Your task to perform on an android device: allow cookies in the chrome app Image 0: 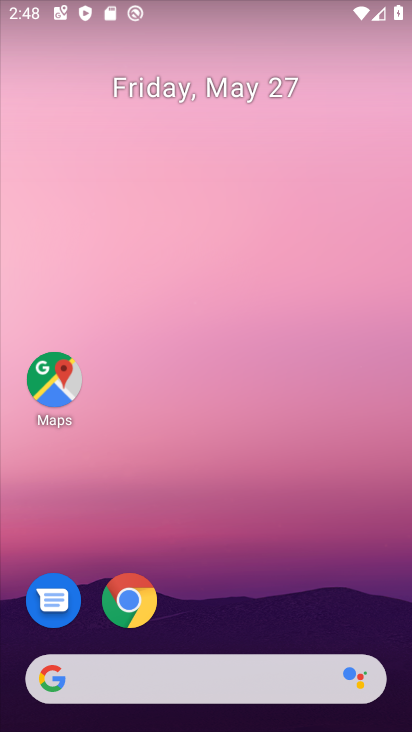
Step 0: click (158, 595)
Your task to perform on an android device: allow cookies in the chrome app Image 1: 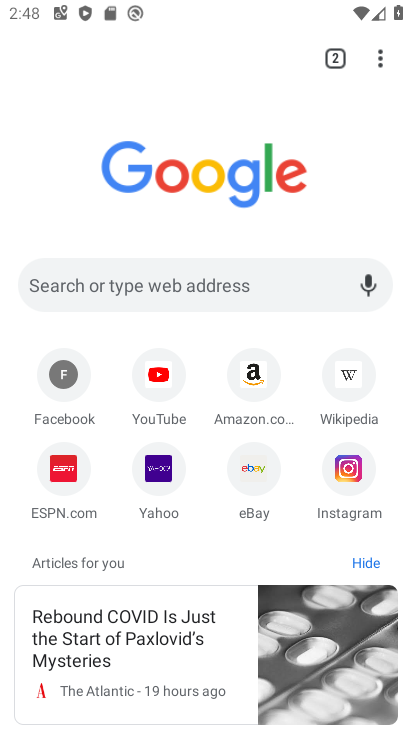
Step 1: click (377, 62)
Your task to perform on an android device: allow cookies in the chrome app Image 2: 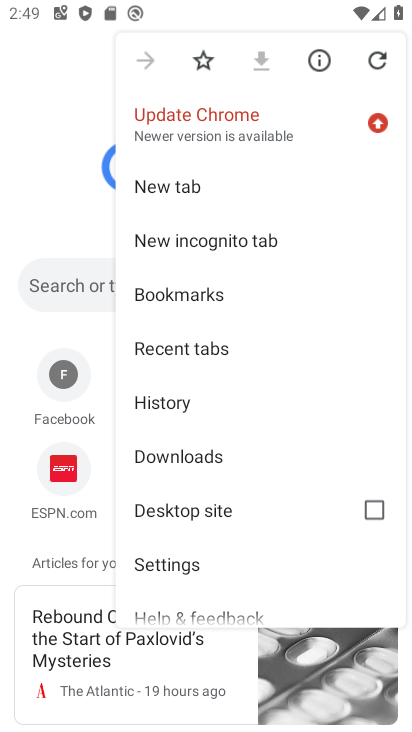
Step 2: click (219, 549)
Your task to perform on an android device: allow cookies in the chrome app Image 3: 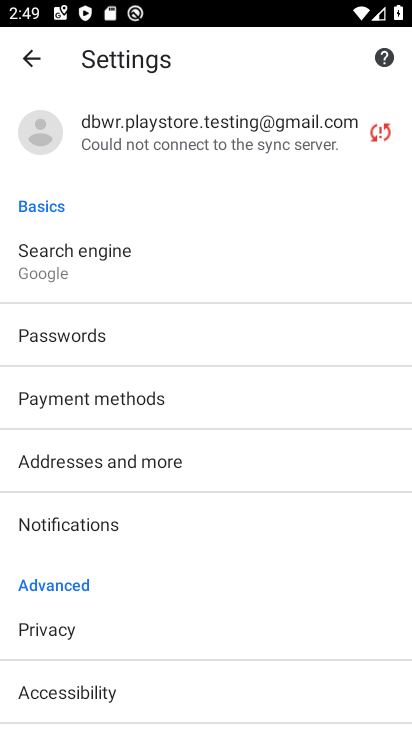
Step 3: drag from (170, 490) to (132, 134)
Your task to perform on an android device: allow cookies in the chrome app Image 4: 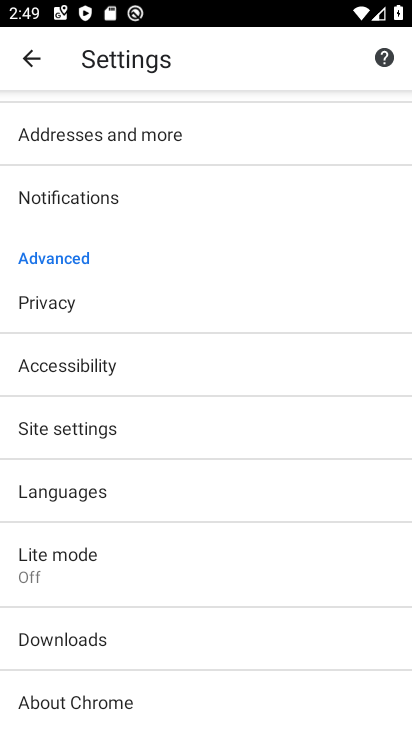
Step 4: click (74, 434)
Your task to perform on an android device: allow cookies in the chrome app Image 5: 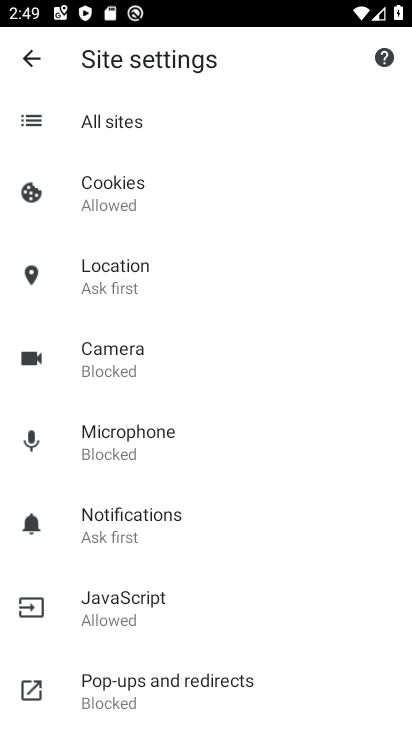
Step 5: click (150, 199)
Your task to perform on an android device: allow cookies in the chrome app Image 6: 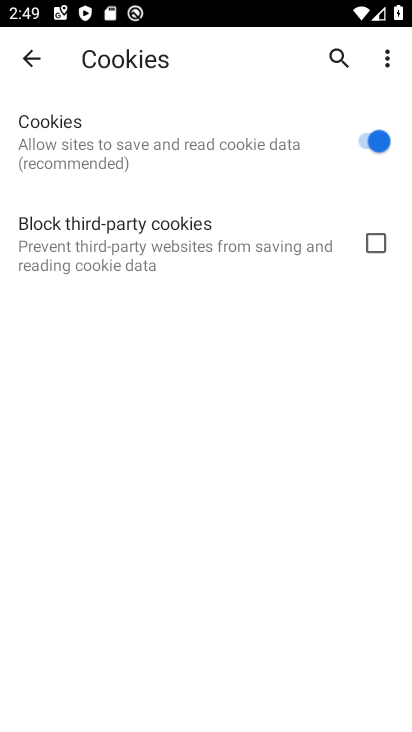
Step 6: task complete